Your task to perform on an android device: check out phone information Image 0: 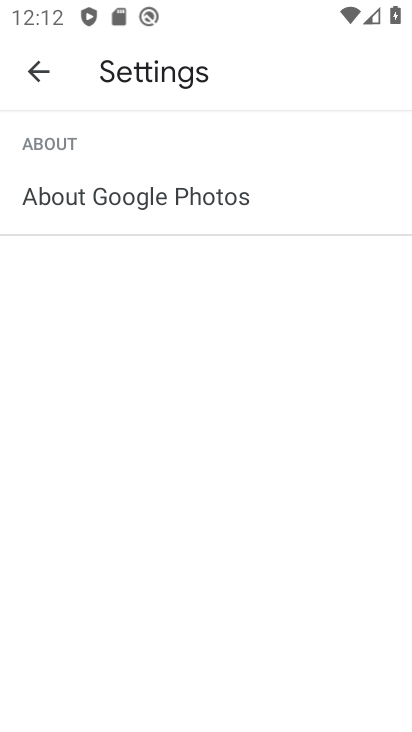
Step 0: press home button
Your task to perform on an android device: check out phone information Image 1: 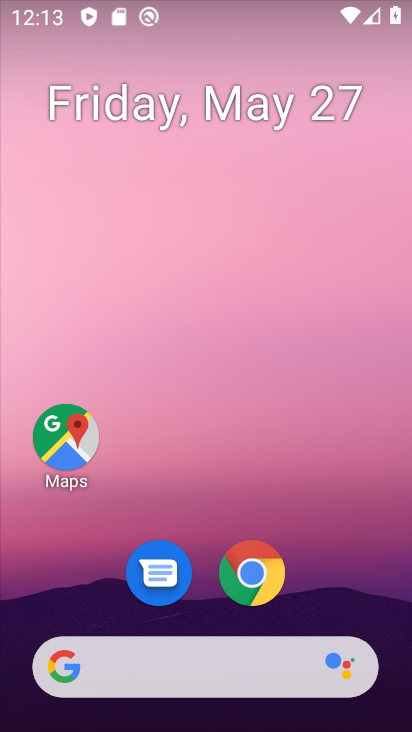
Step 1: drag from (318, 385) to (319, 108)
Your task to perform on an android device: check out phone information Image 2: 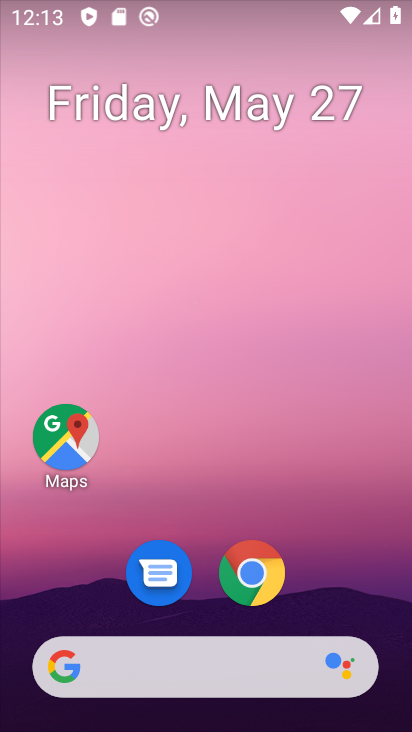
Step 2: drag from (337, 530) to (319, 92)
Your task to perform on an android device: check out phone information Image 3: 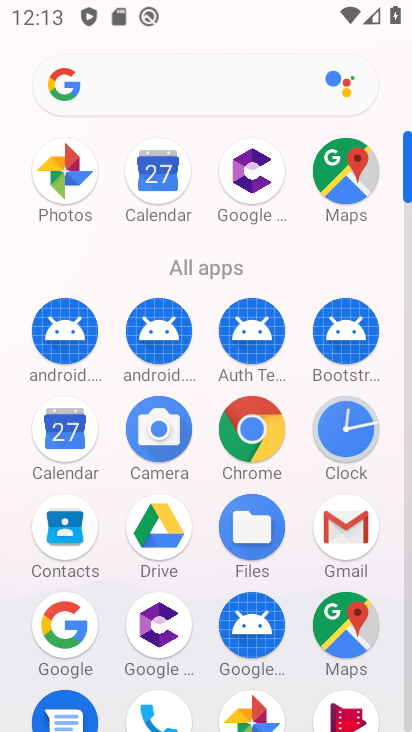
Step 3: drag from (302, 591) to (339, 207)
Your task to perform on an android device: check out phone information Image 4: 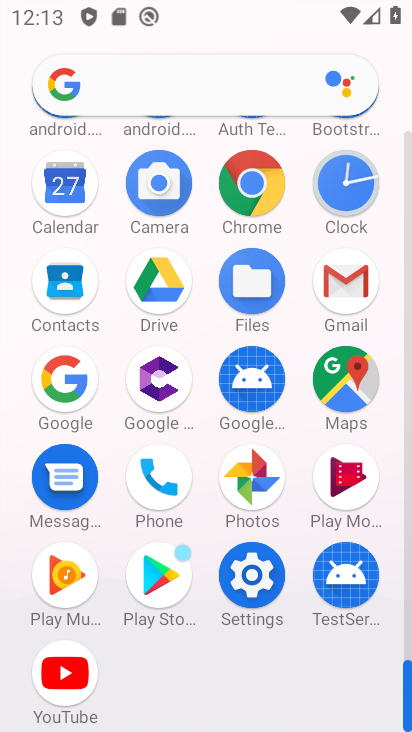
Step 4: click (166, 493)
Your task to perform on an android device: check out phone information Image 5: 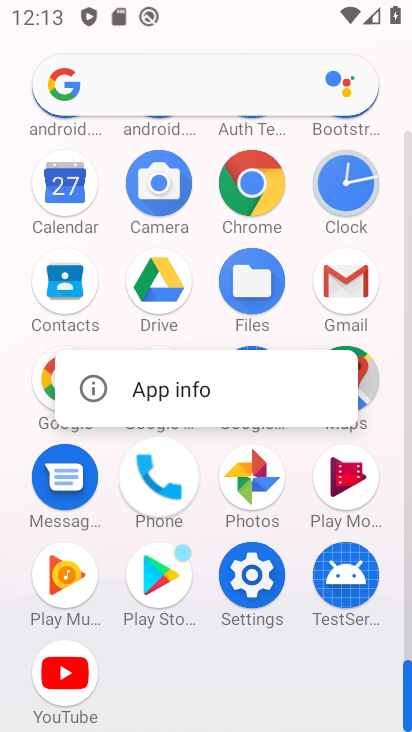
Step 5: click (175, 388)
Your task to perform on an android device: check out phone information Image 6: 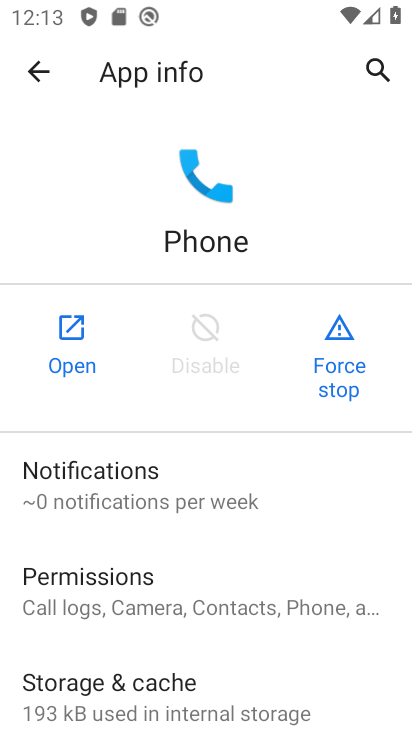
Step 6: task complete